Your task to perform on an android device: Do I have any events this weekend? Image 0: 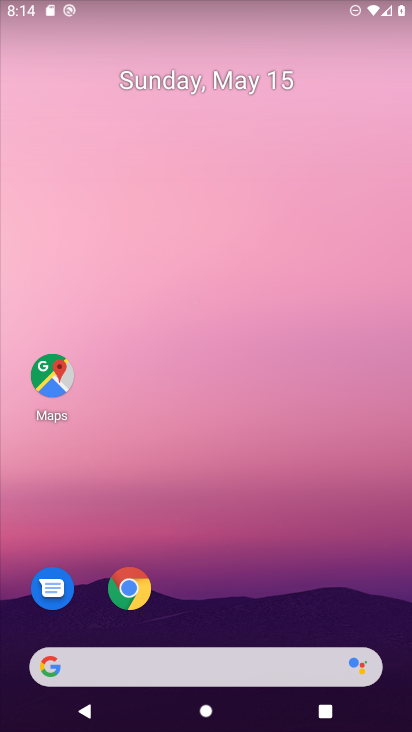
Step 0: drag from (209, 637) to (205, 93)
Your task to perform on an android device: Do I have any events this weekend? Image 1: 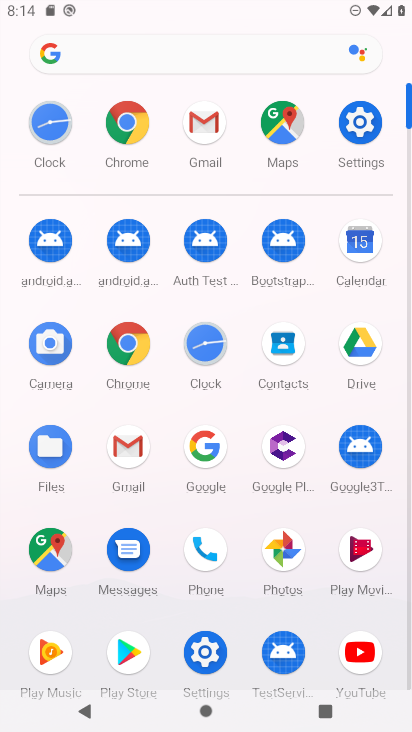
Step 1: click (367, 240)
Your task to perform on an android device: Do I have any events this weekend? Image 2: 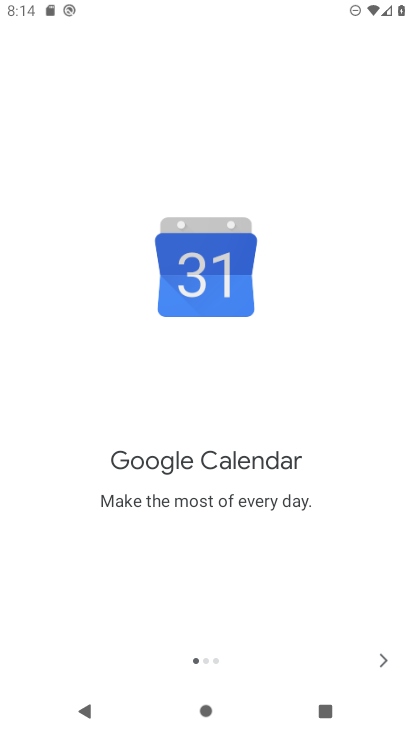
Step 2: click (371, 652)
Your task to perform on an android device: Do I have any events this weekend? Image 3: 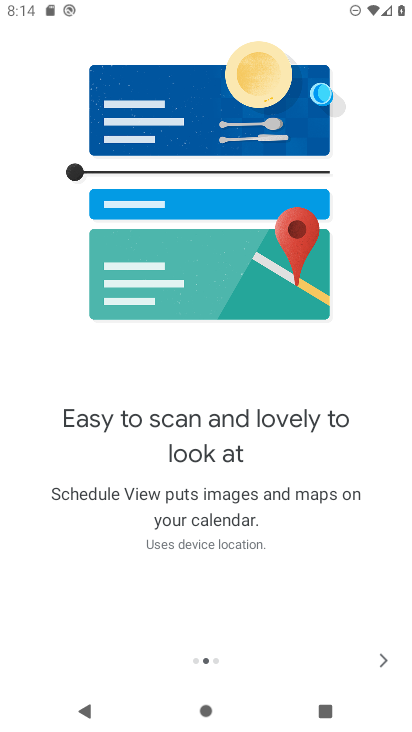
Step 3: click (373, 649)
Your task to perform on an android device: Do I have any events this weekend? Image 4: 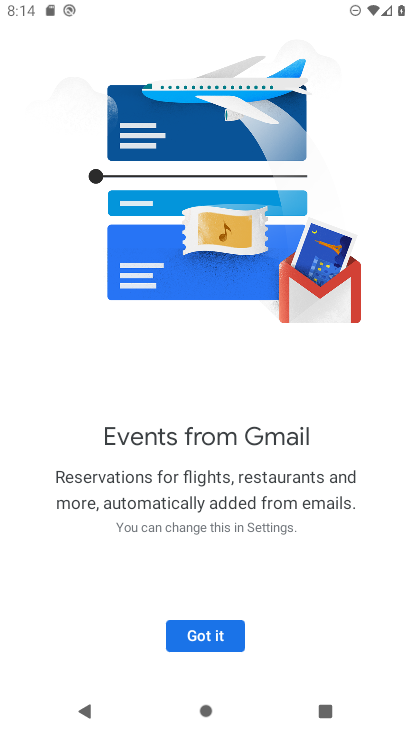
Step 4: click (212, 655)
Your task to perform on an android device: Do I have any events this weekend? Image 5: 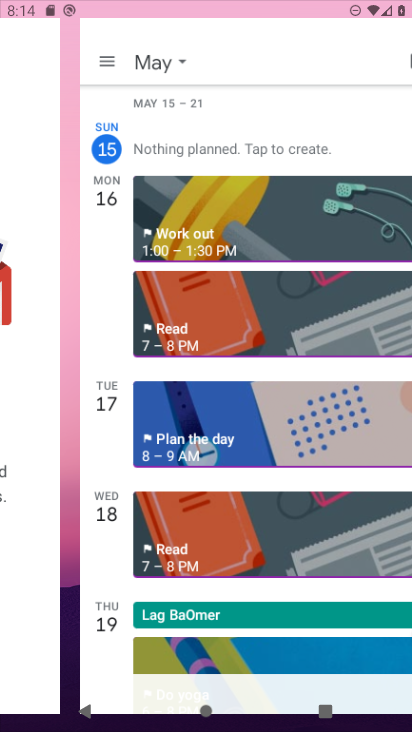
Step 5: click (212, 636)
Your task to perform on an android device: Do I have any events this weekend? Image 6: 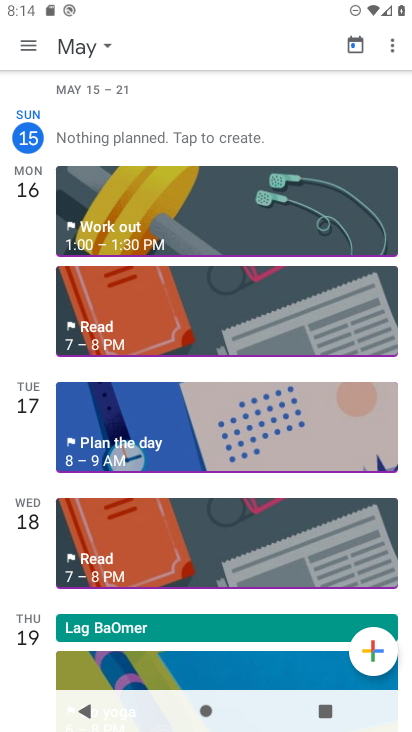
Step 6: click (20, 43)
Your task to perform on an android device: Do I have any events this weekend? Image 7: 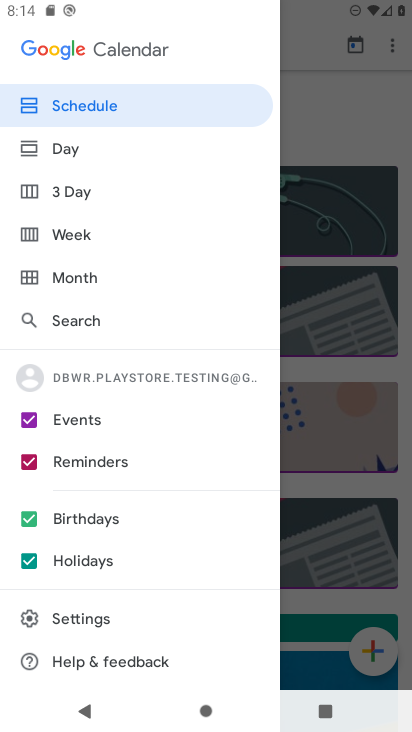
Step 7: click (52, 236)
Your task to perform on an android device: Do I have any events this weekend? Image 8: 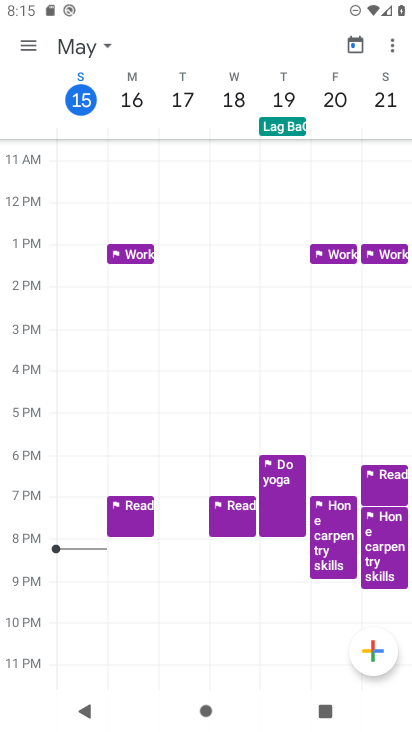
Step 8: click (75, 109)
Your task to perform on an android device: Do I have any events this weekend? Image 9: 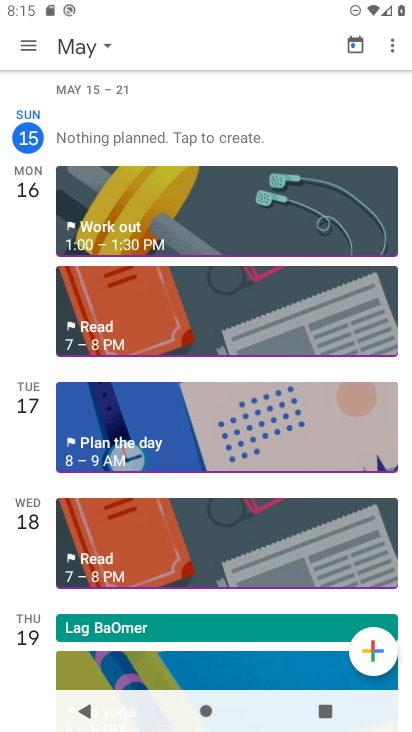
Step 9: drag from (25, 458) to (26, 232)
Your task to perform on an android device: Do I have any events this weekend? Image 10: 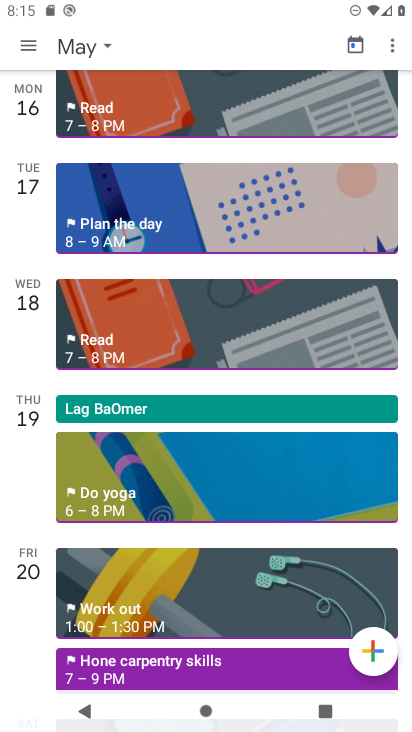
Step 10: click (25, 45)
Your task to perform on an android device: Do I have any events this weekend? Image 11: 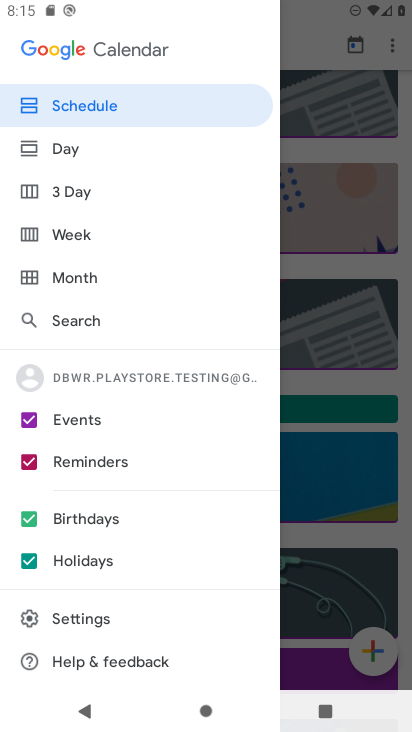
Step 11: click (29, 513)
Your task to perform on an android device: Do I have any events this weekend? Image 12: 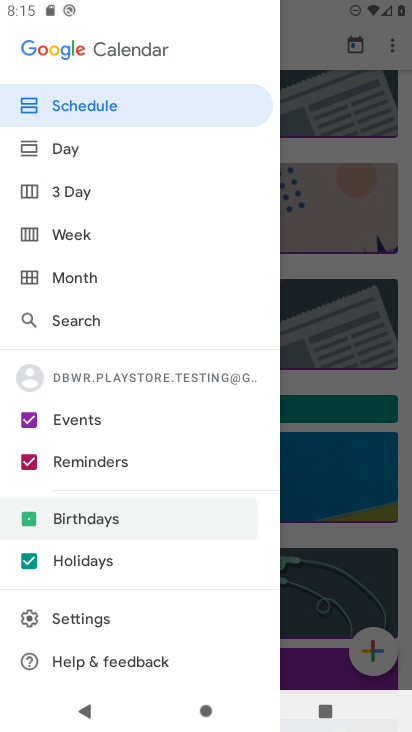
Step 12: click (21, 456)
Your task to perform on an android device: Do I have any events this weekend? Image 13: 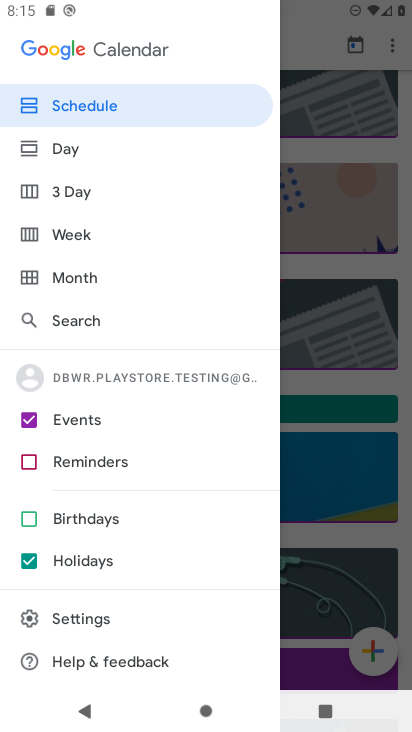
Step 13: click (22, 561)
Your task to perform on an android device: Do I have any events this weekend? Image 14: 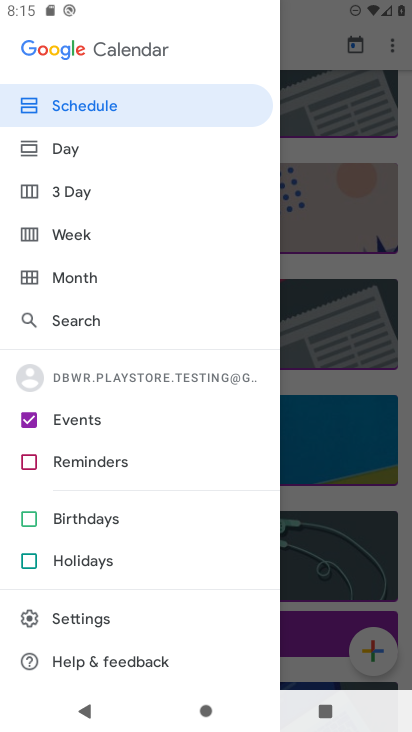
Step 14: click (59, 97)
Your task to perform on an android device: Do I have any events this weekend? Image 15: 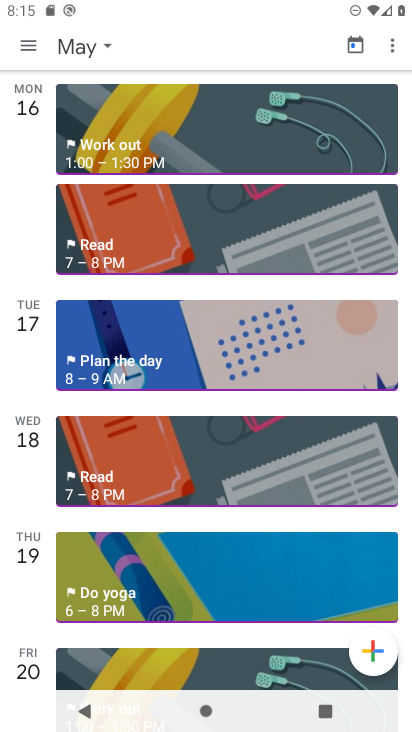
Step 15: task complete